Your task to perform on an android device: open wifi settings Image 0: 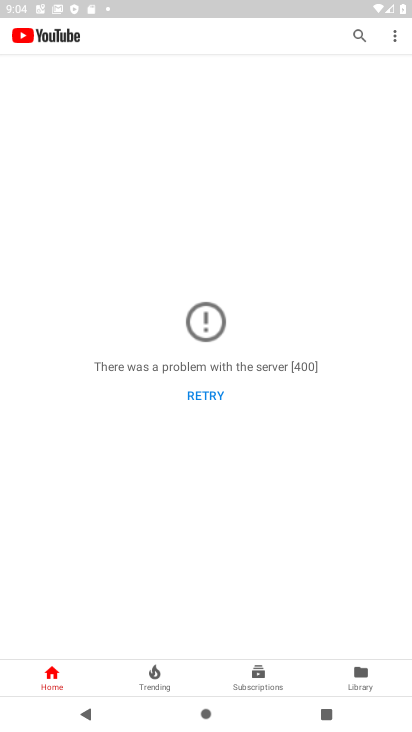
Step 0: press back button
Your task to perform on an android device: open wifi settings Image 1: 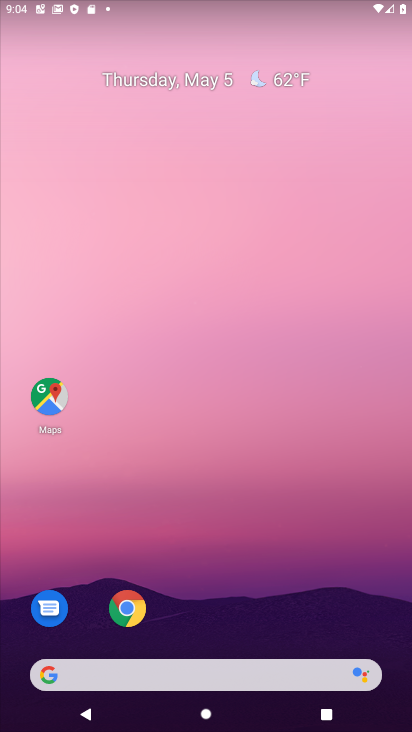
Step 1: drag from (299, 551) to (217, 19)
Your task to perform on an android device: open wifi settings Image 2: 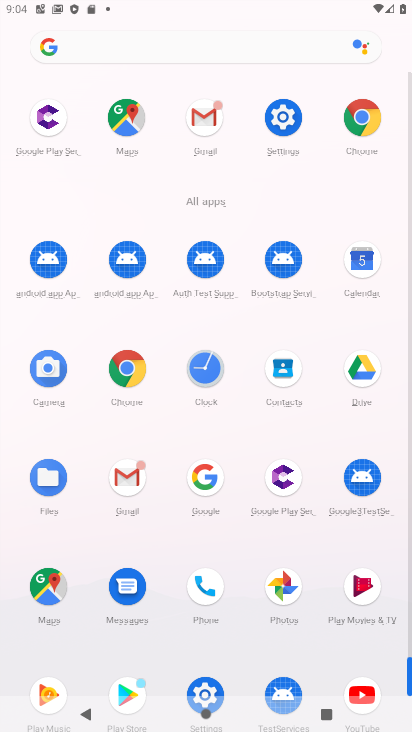
Step 2: drag from (10, 512) to (0, 240)
Your task to perform on an android device: open wifi settings Image 3: 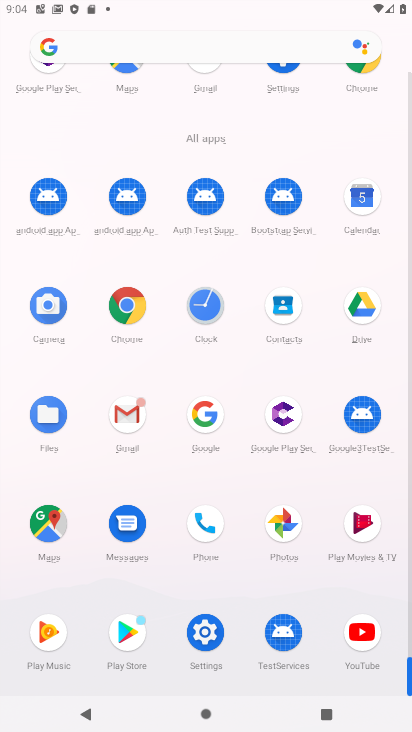
Step 3: click (206, 627)
Your task to perform on an android device: open wifi settings Image 4: 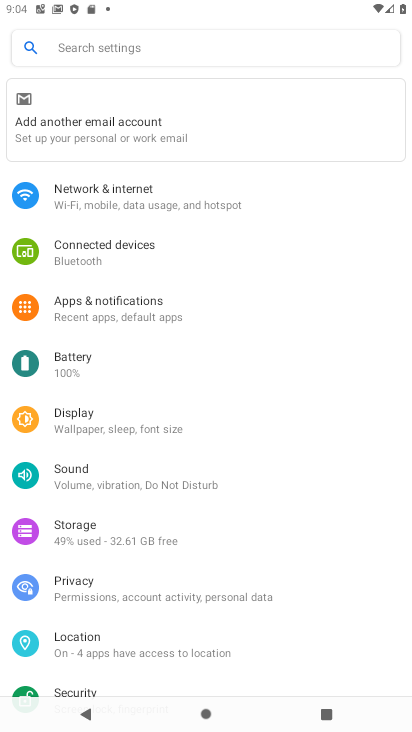
Step 4: click (161, 202)
Your task to perform on an android device: open wifi settings Image 5: 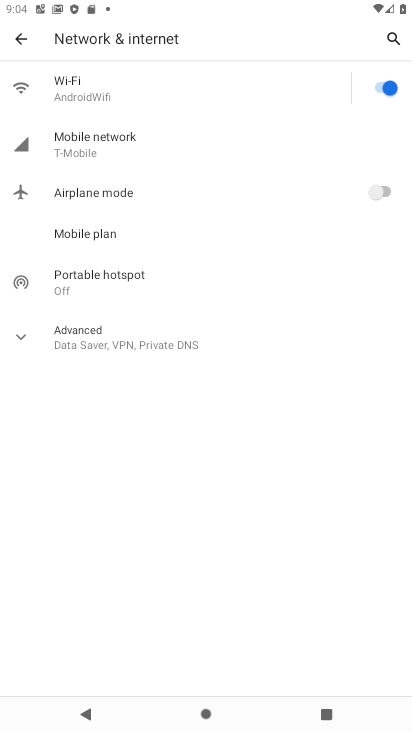
Step 5: click (107, 99)
Your task to perform on an android device: open wifi settings Image 6: 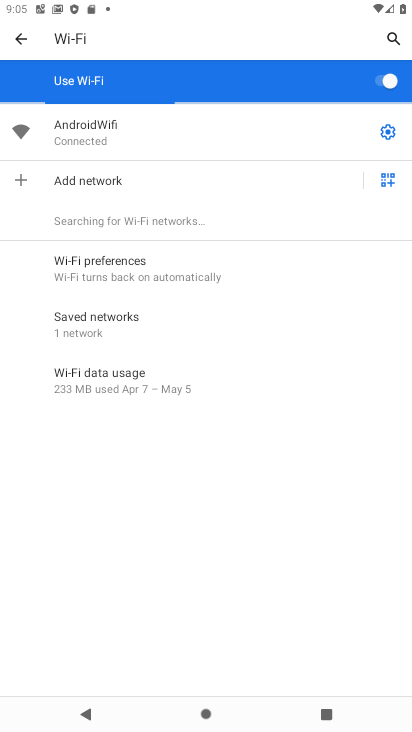
Step 6: task complete